Your task to perform on an android device: show emergency info Image 0: 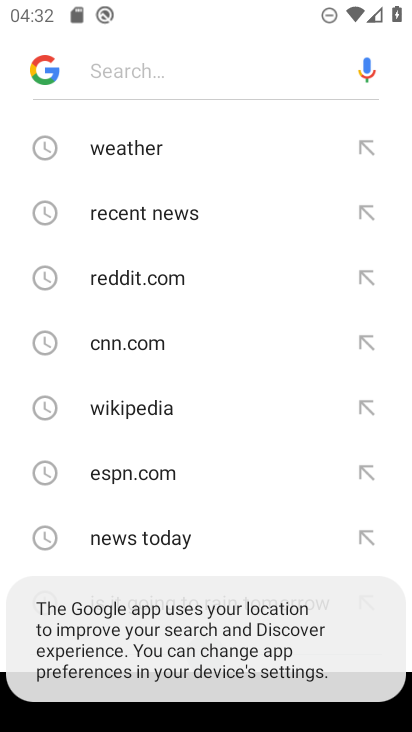
Step 0: press home button
Your task to perform on an android device: show emergency info Image 1: 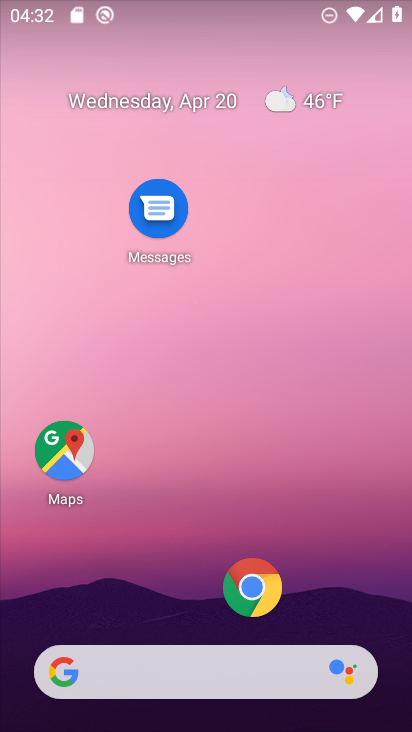
Step 1: drag from (182, 618) to (204, 182)
Your task to perform on an android device: show emergency info Image 2: 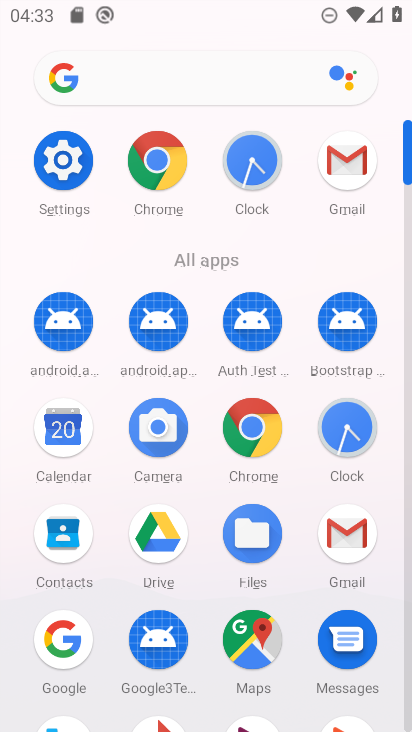
Step 2: click (69, 164)
Your task to perform on an android device: show emergency info Image 3: 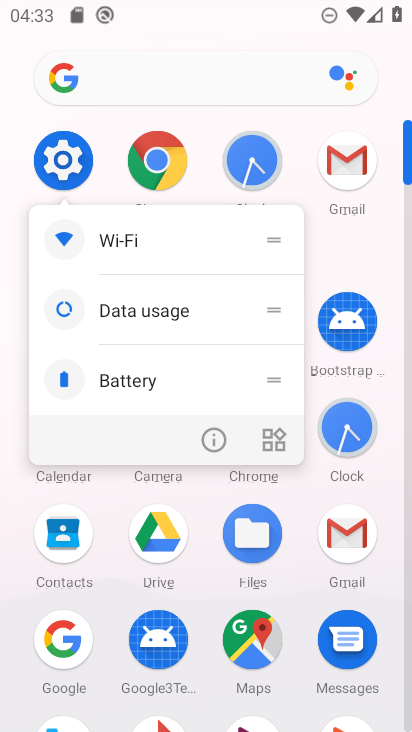
Step 3: click (74, 166)
Your task to perform on an android device: show emergency info Image 4: 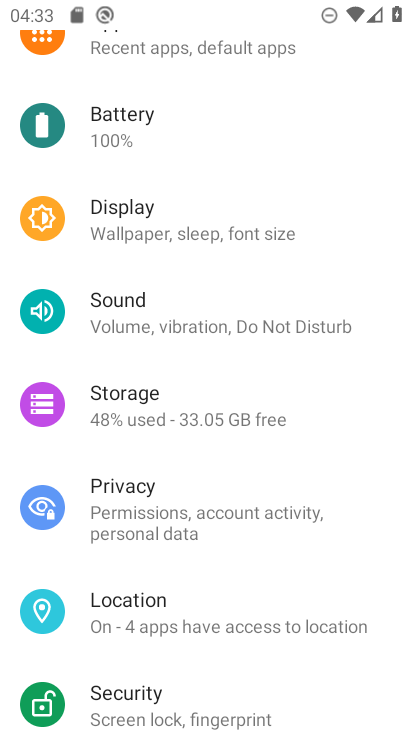
Step 4: drag from (224, 616) to (240, 292)
Your task to perform on an android device: show emergency info Image 5: 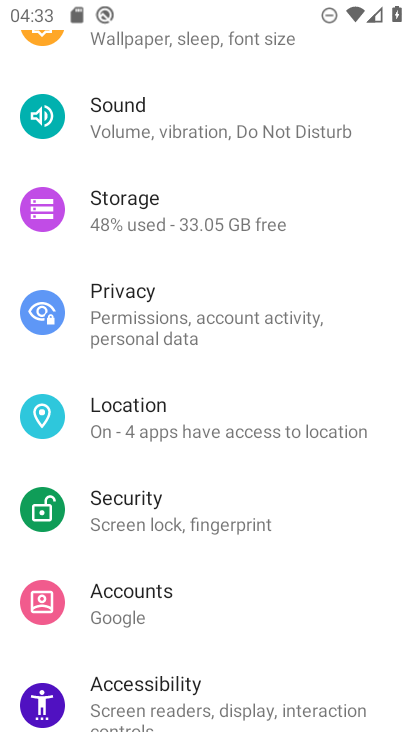
Step 5: drag from (214, 624) to (181, 241)
Your task to perform on an android device: show emergency info Image 6: 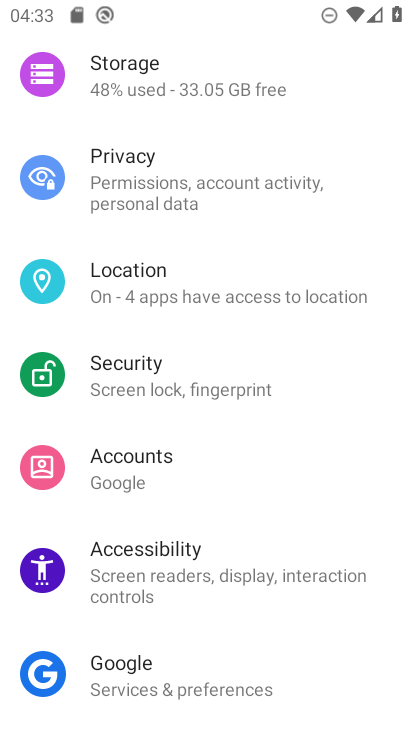
Step 6: drag from (182, 641) to (233, 298)
Your task to perform on an android device: show emergency info Image 7: 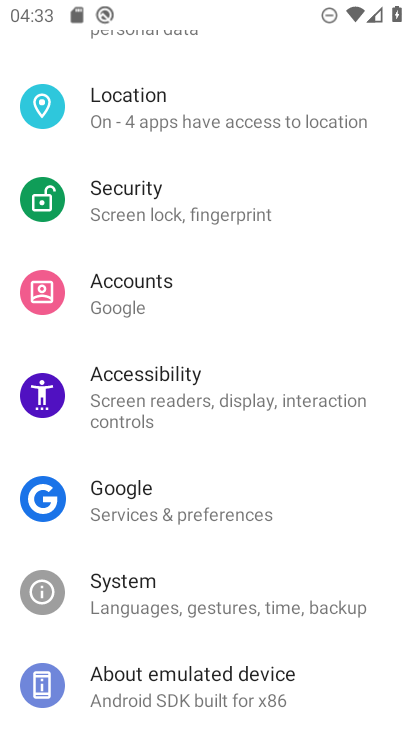
Step 7: drag from (215, 643) to (256, 332)
Your task to perform on an android device: show emergency info Image 8: 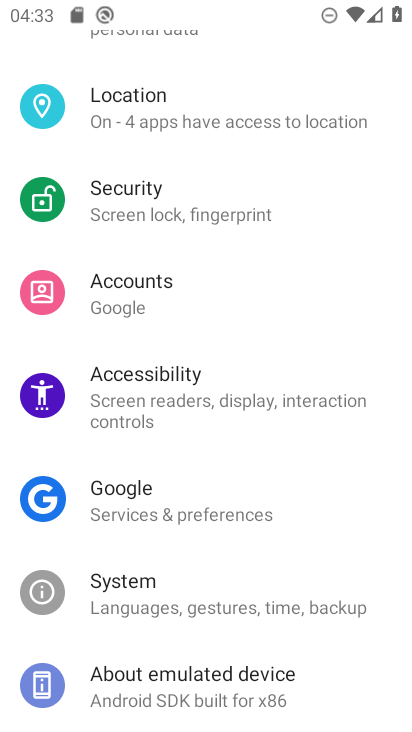
Step 8: click (160, 679)
Your task to perform on an android device: show emergency info Image 9: 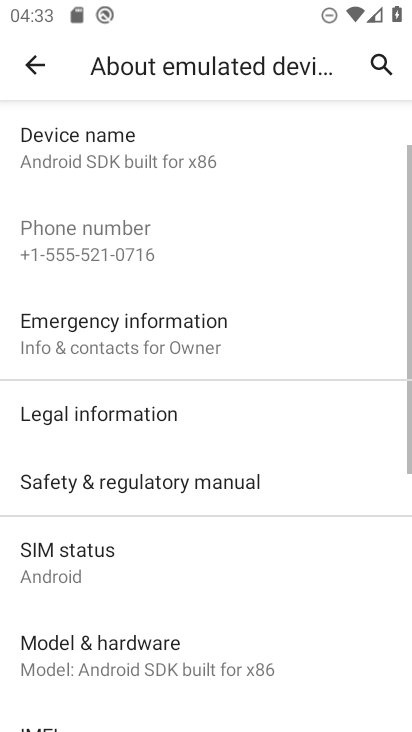
Step 9: click (115, 321)
Your task to perform on an android device: show emergency info Image 10: 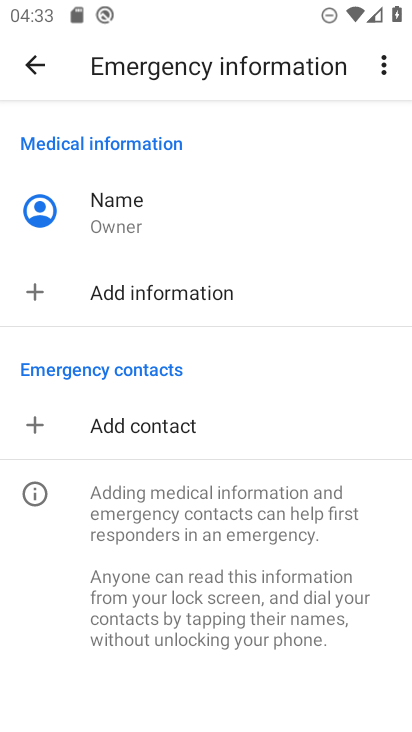
Step 10: task complete